Your task to perform on an android device: Go to Reddit.com Image 0: 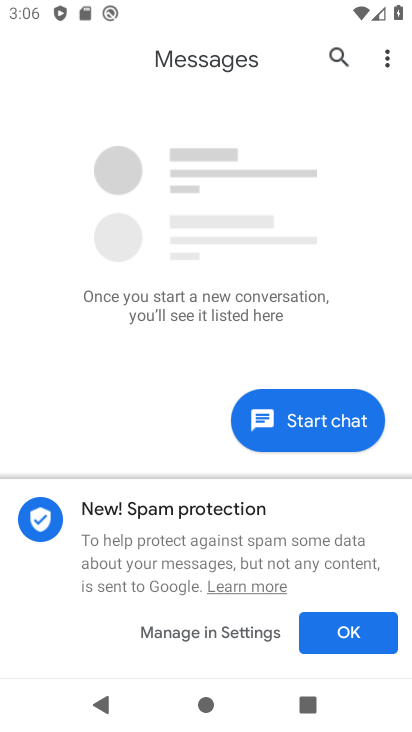
Step 0: press home button
Your task to perform on an android device: Go to Reddit.com Image 1: 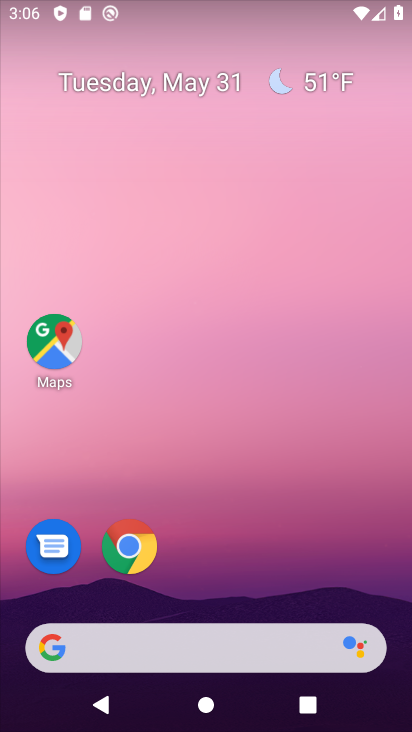
Step 1: drag from (225, 578) to (242, 84)
Your task to perform on an android device: Go to Reddit.com Image 2: 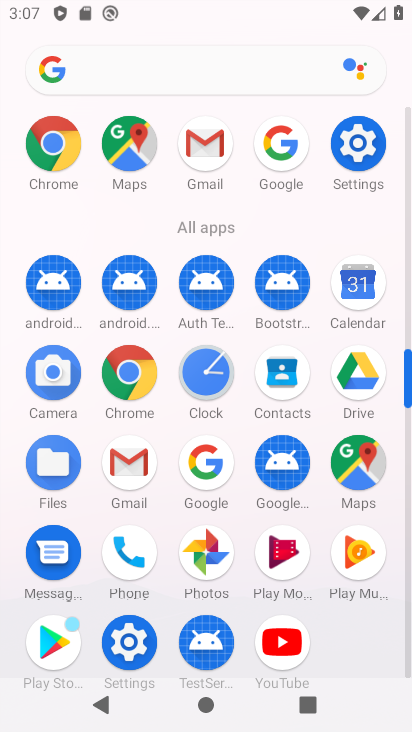
Step 2: click (50, 160)
Your task to perform on an android device: Go to Reddit.com Image 3: 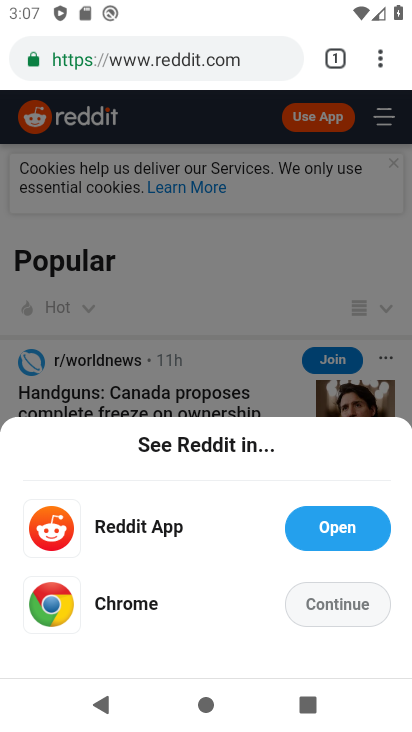
Step 3: press back button
Your task to perform on an android device: Go to Reddit.com Image 4: 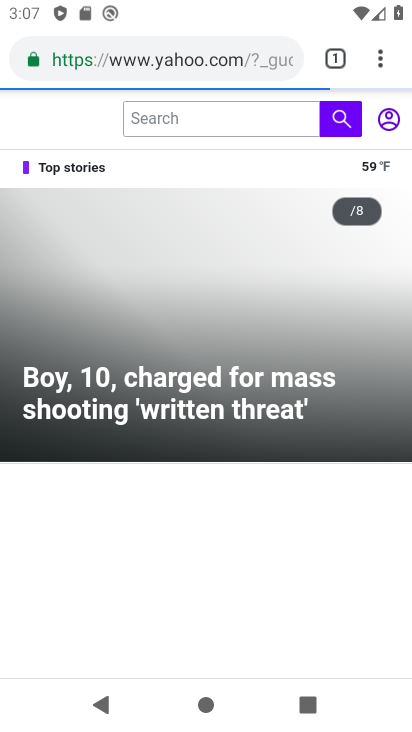
Step 4: click (183, 47)
Your task to perform on an android device: Go to Reddit.com Image 5: 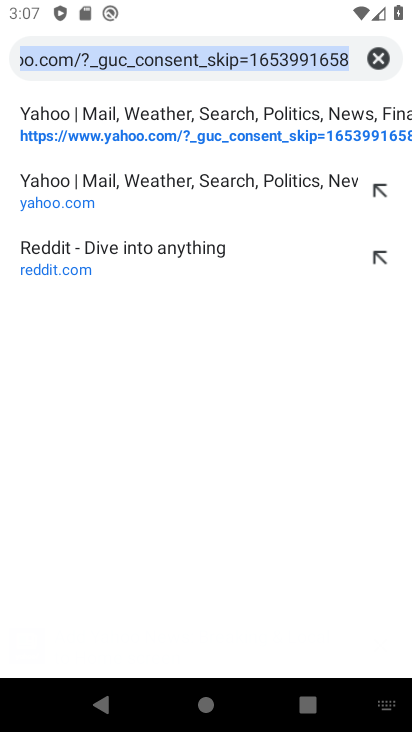
Step 5: type "www.reddit.com"
Your task to perform on an android device: Go to Reddit.com Image 6: 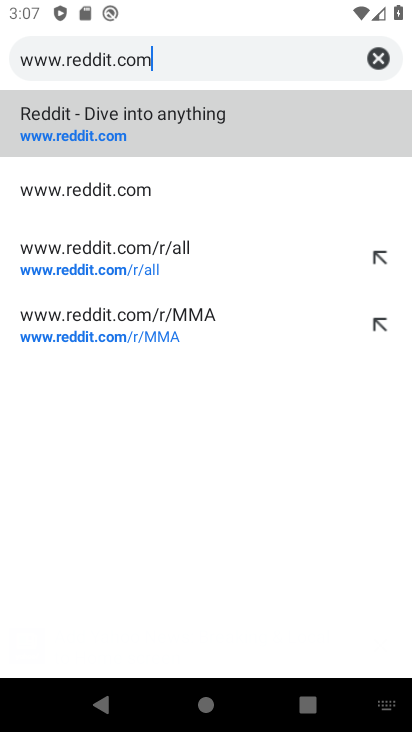
Step 6: click (69, 112)
Your task to perform on an android device: Go to Reddit.com Image 7: 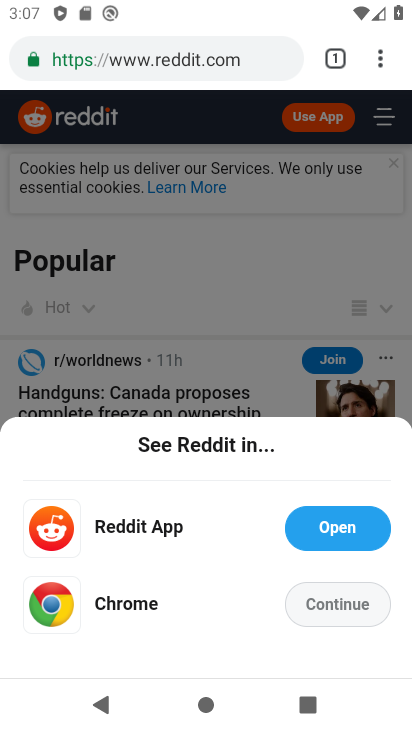
Step 7: task complete